Your task to perform on an android device: Install the Wikipedia app Image 0: 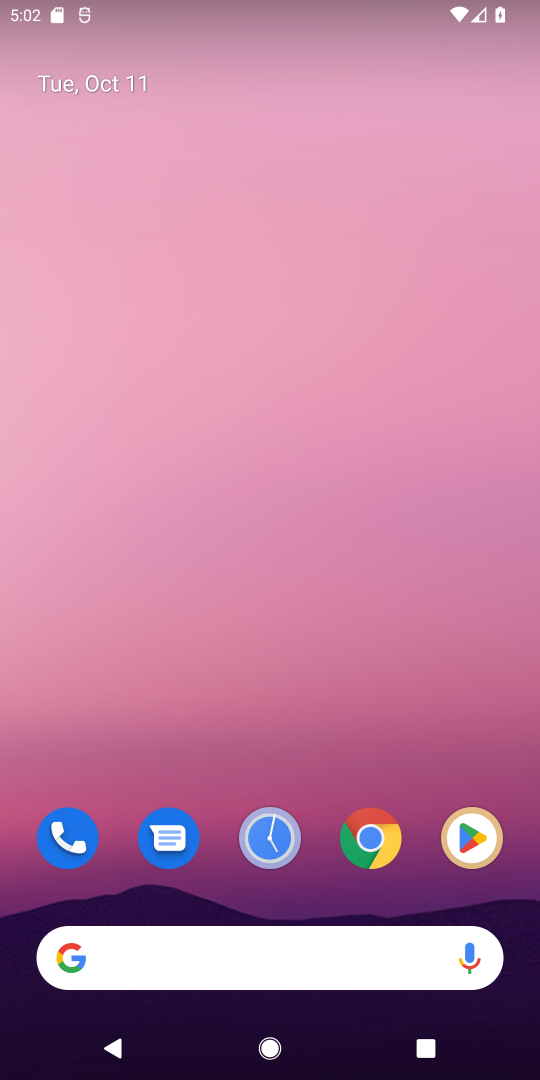
Step 0: drag from (319, 754) to (317, 216)
Your task to perform on an android device: Install the Wikipedia app Image 1: 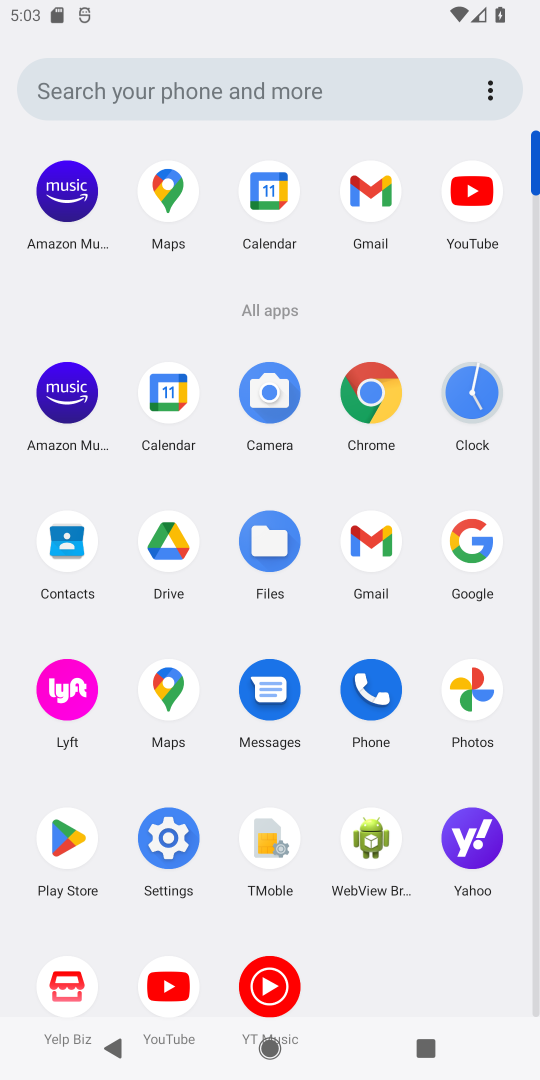
Step 1: click (56, 864)
Your task to perform on an android device: Install the Wikipedia app Image 2: 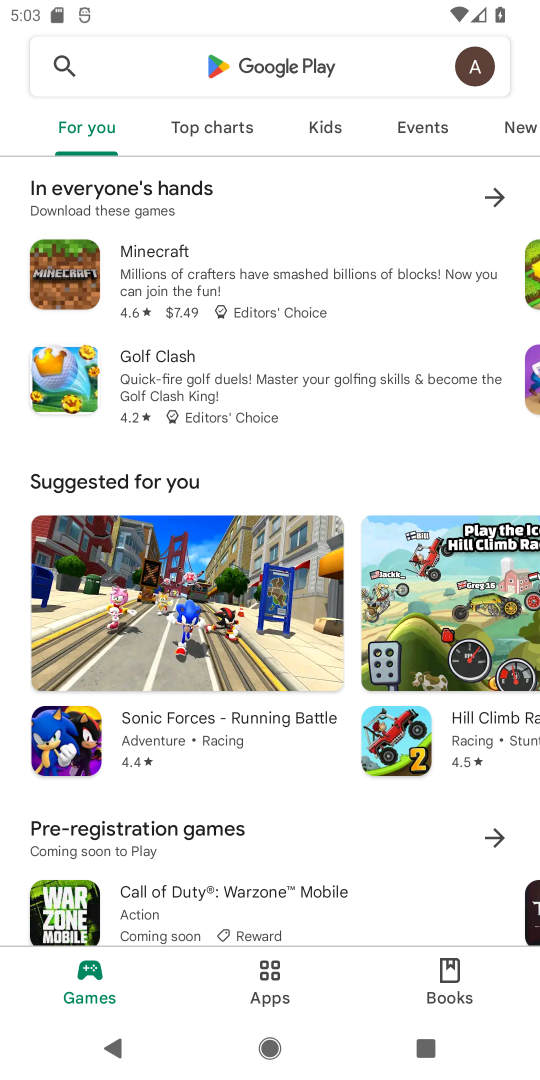
Step 2: click (264, 65)
Your task to perform on an android device: Install the Wikipedia app Image 3: 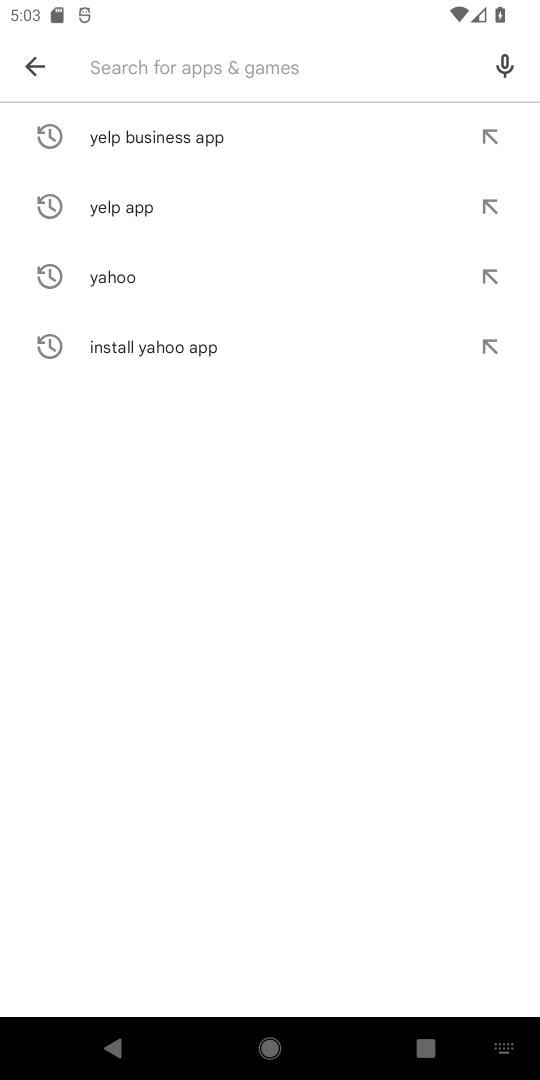
Step 3: type "wikipedia app"
Your task to perform on an android device: Install the Wikipedia app Image 4: 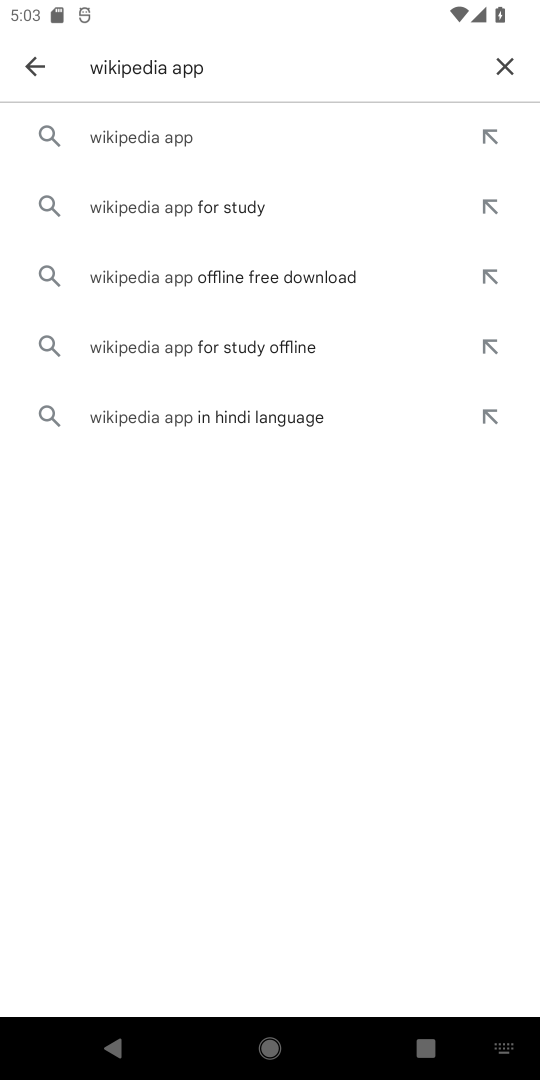
Step 4: click (139, 139)
Your task to perform on an android device: Install the Wikipedia app Image 5: 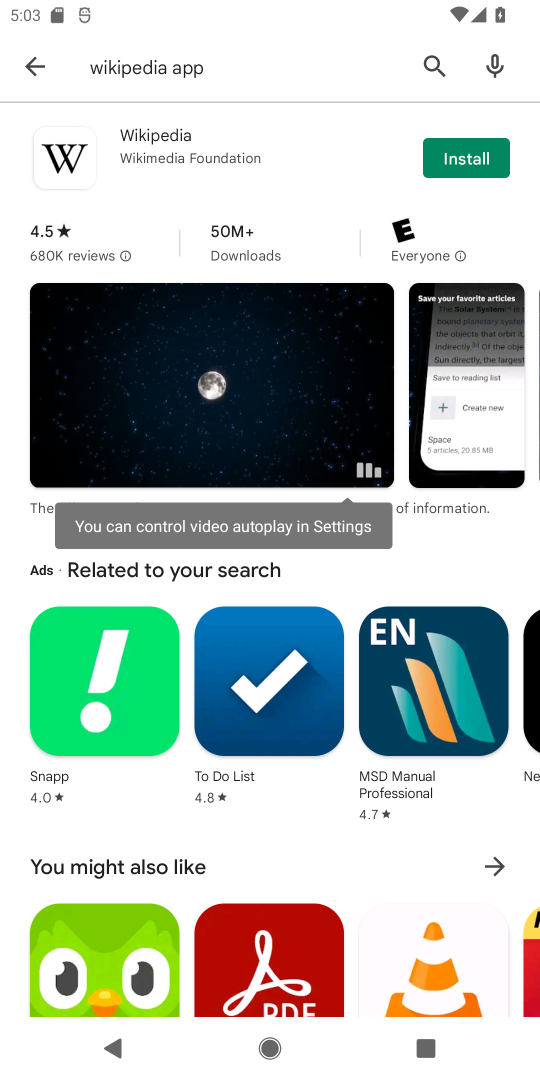
Step 5: click (465, 161)
Your task to perform on an android device: Install the Wikipedia app Image 6: 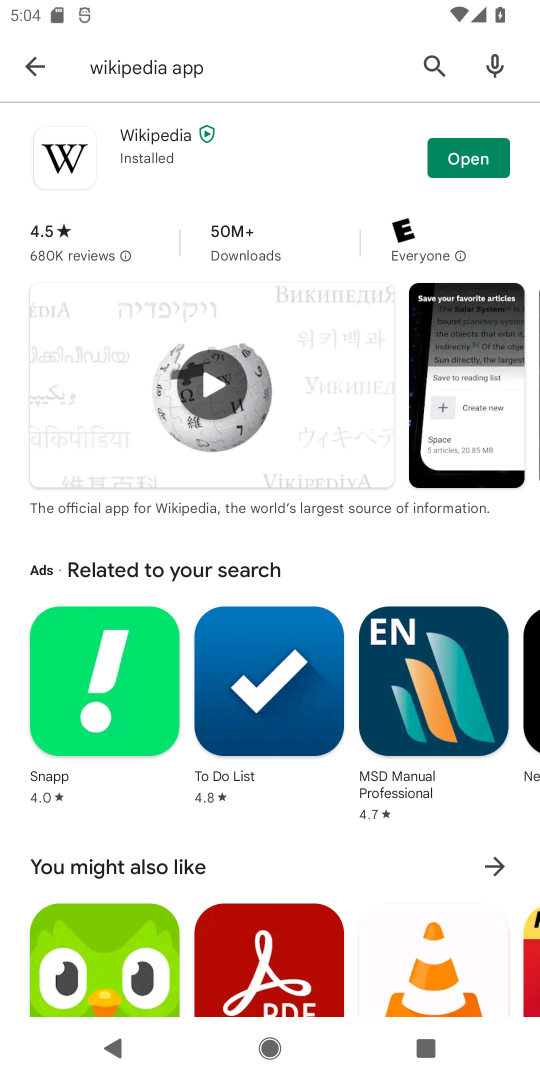
Step 6: click (457, 160)
Your task to perform on an android device: Install the Wikipedia app Image 7: 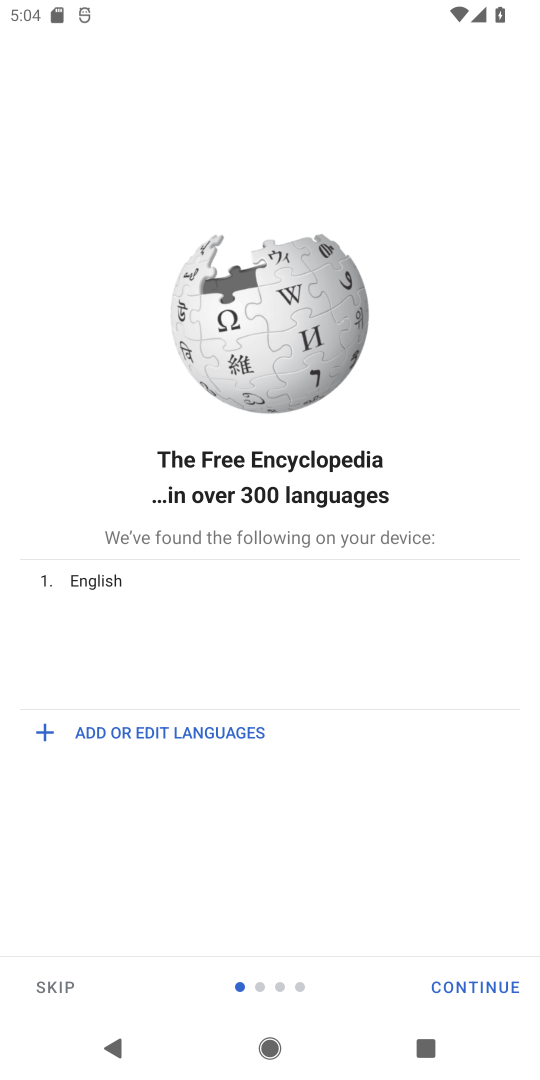
Step 7: task complete